Your task to perform on an android device: find photos in the google photos app Image 0: 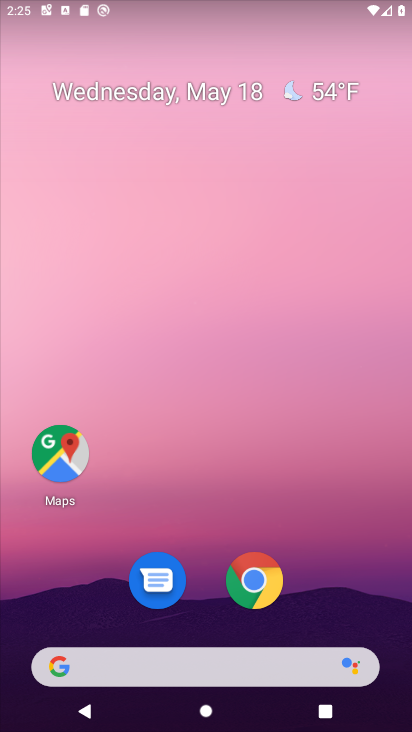
Step 0: drag from (206, 627) to (240, 113)
Your task to perform on an android device: find photos in the google photos app Image 1: 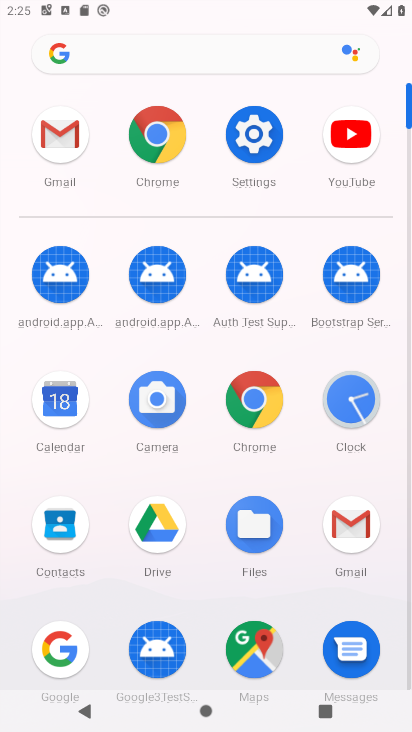
Step 1: drag from (190, 566) to (221, 135)
Your task to perform on an android device: find photos in the google photos app Image 2: 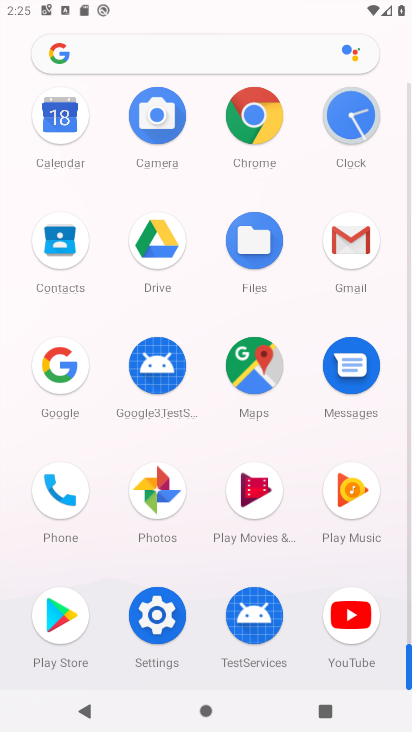
Step 2: drag from (217, 573) to (224, 388)
Your task to perform on an android device: find photos in the google photos app Image 3: 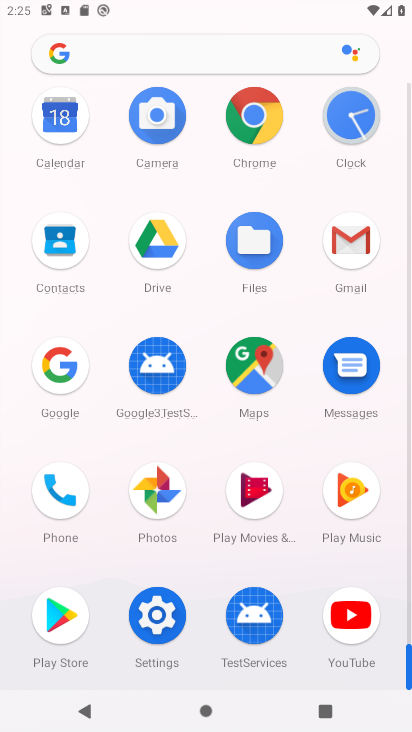
Step 3: click (145, 495)
Your task to perform on an android device: find photos in the google photos app Image 4: 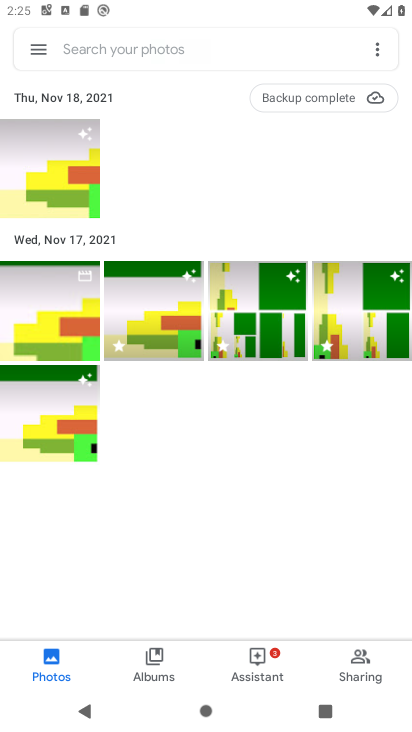
Step 4: click (39, 304)
Your task to perform on an android device: find photos in the google photos app Image 5: 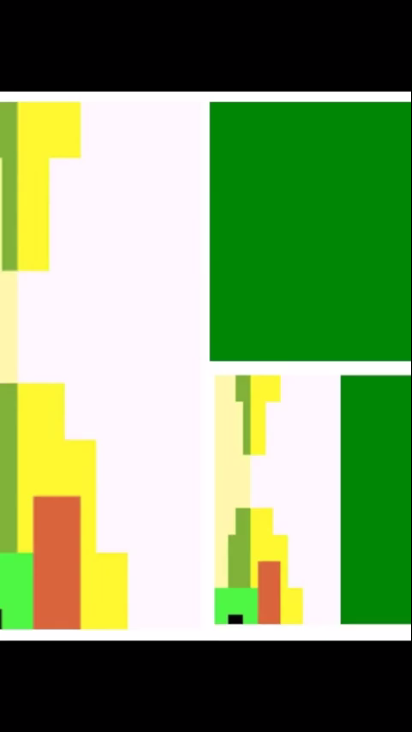
Step 5: task complete